Your task to perform on an android device: allow cookies in the chrome app Image 0: 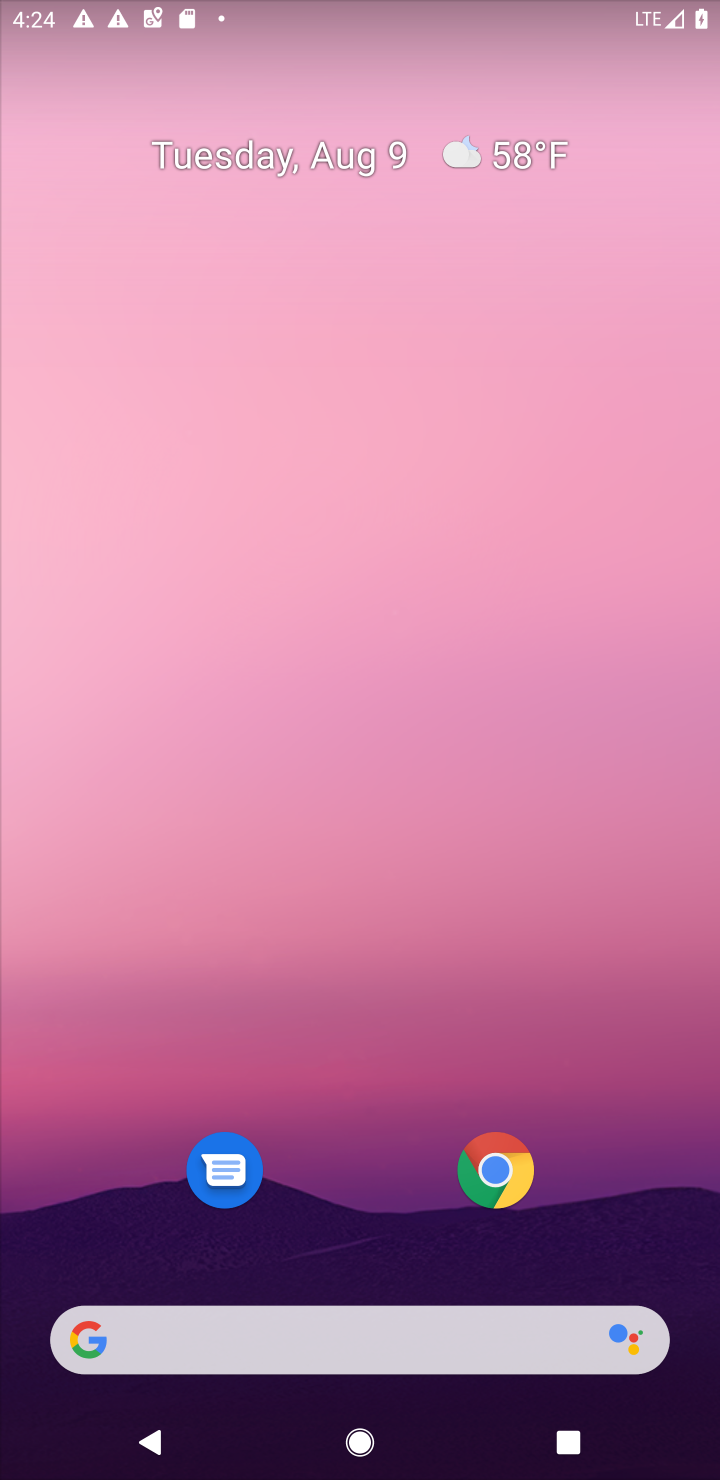
Step 0: press home button
Your task to perform on an android device: allow cookies in the chrome app Image 1: 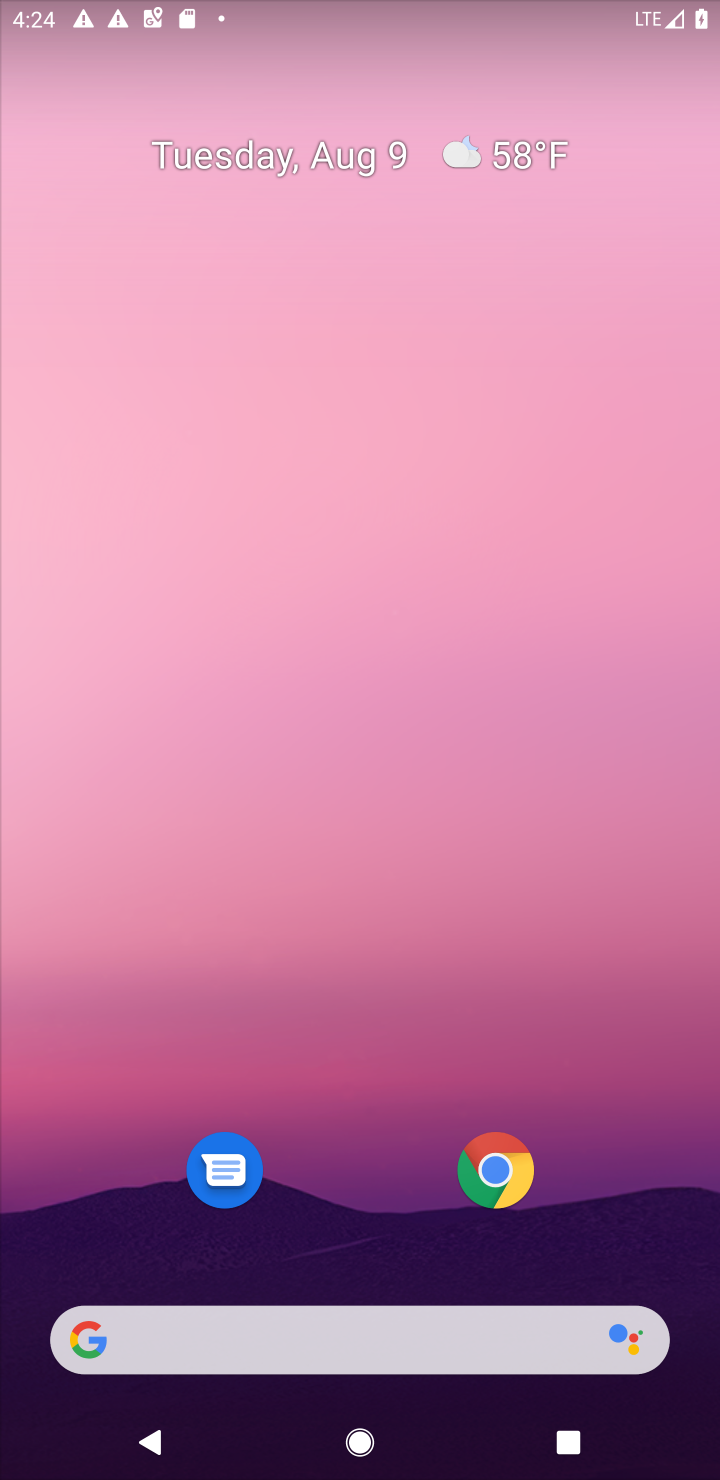
Step 1: click (494, 1178)
Your task to perform on an android device: allow cookies in the chrome app Image 2: 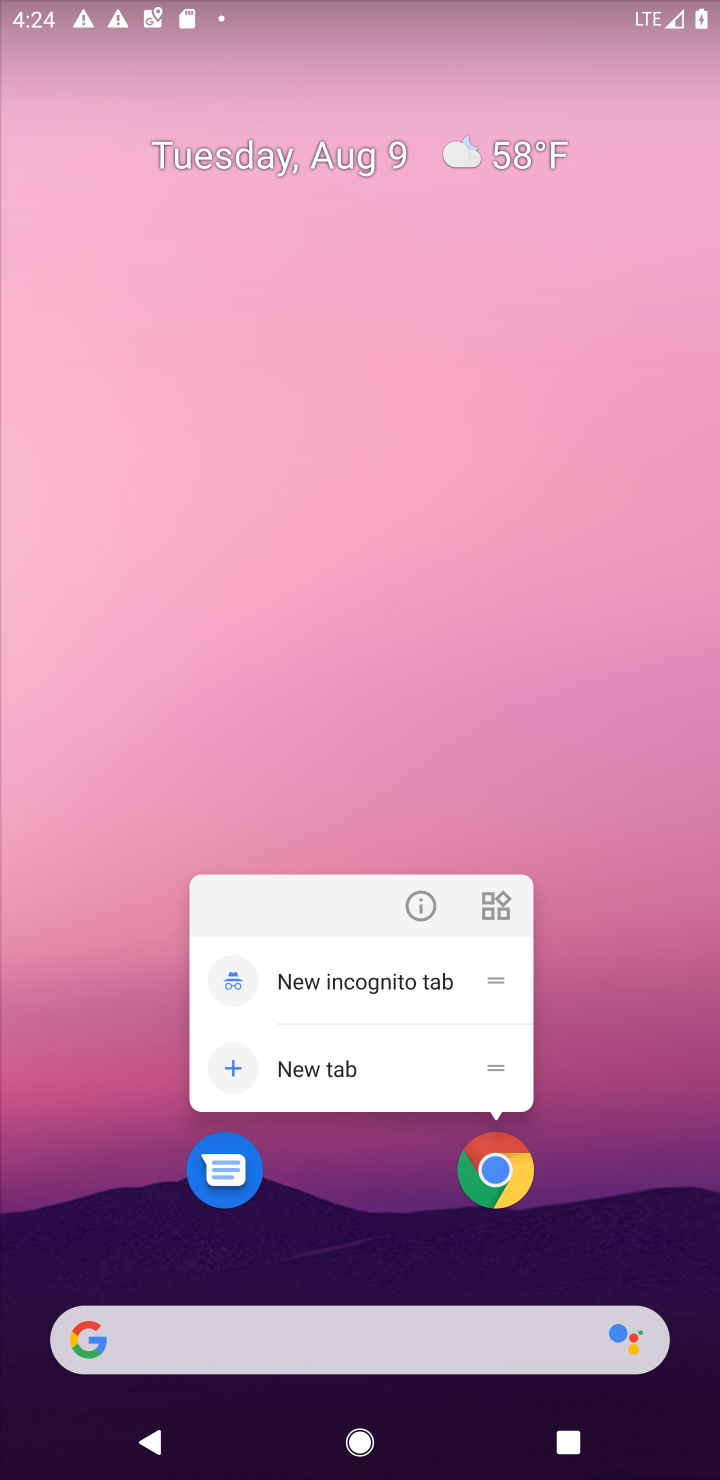
Step 2: click (491, 1183)
Your task to perform on an android device: allow cookies in the chrome app Image 3: 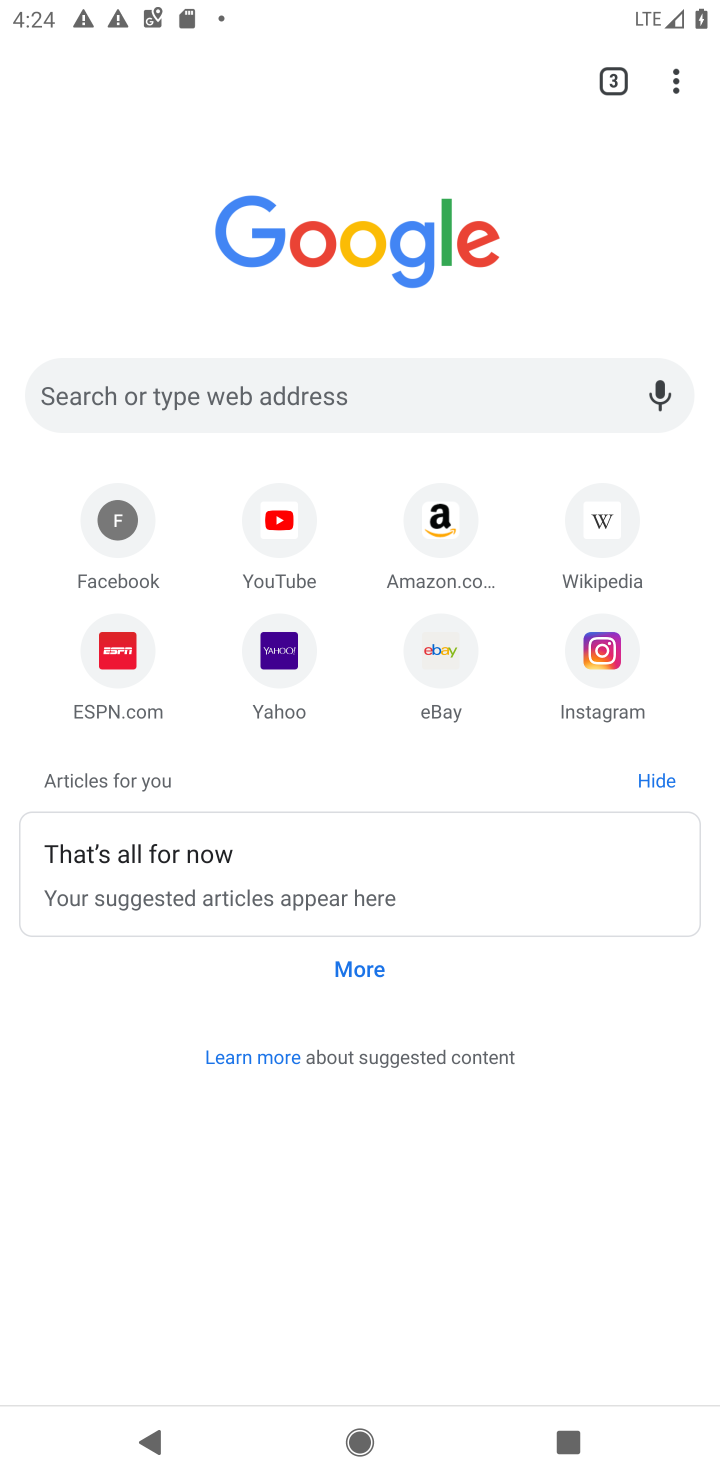
Step 3: drag from (675, 76) to (382, 684)
Your task to perform on an android device: allow cookies in the chrome app Image 4: 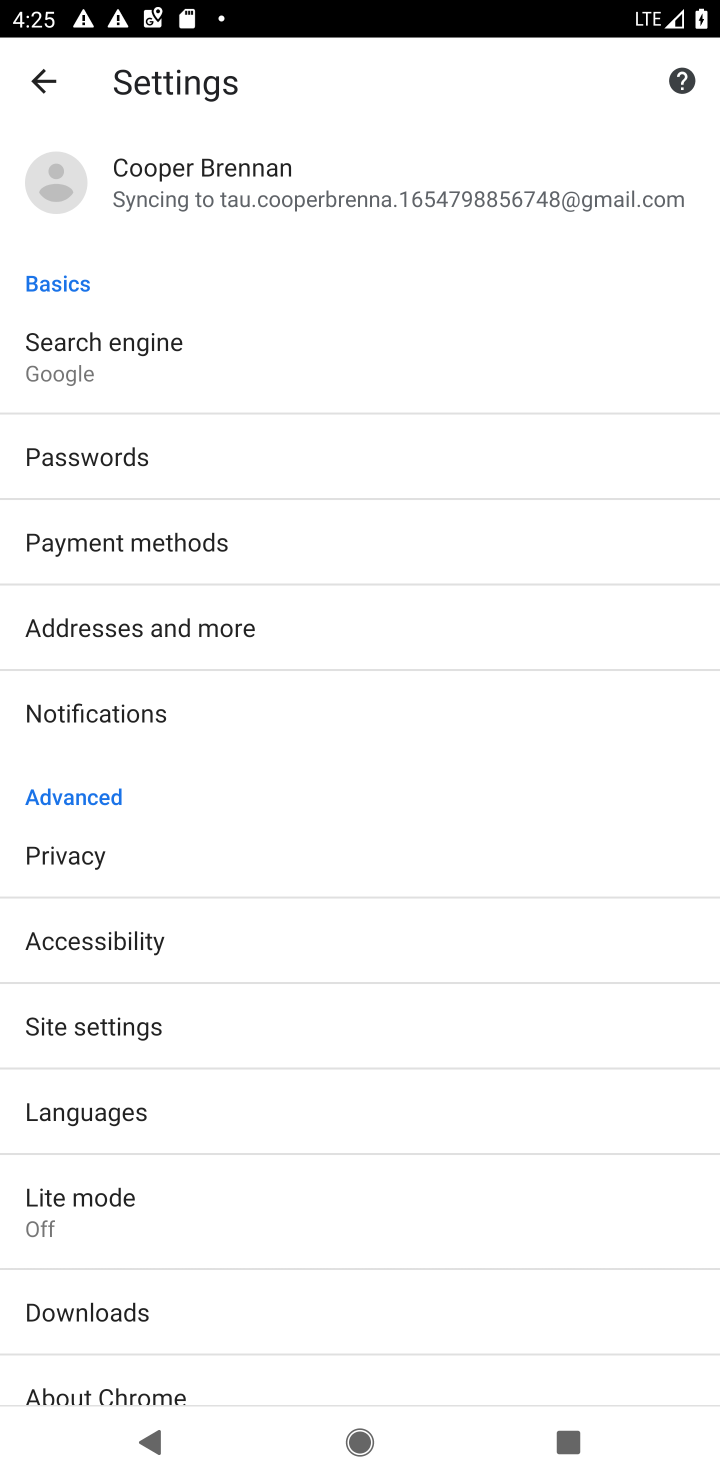
Step 4: click (72, 1009)
Your task to perform on an android device: allow cookies in the chrome app Image 5: 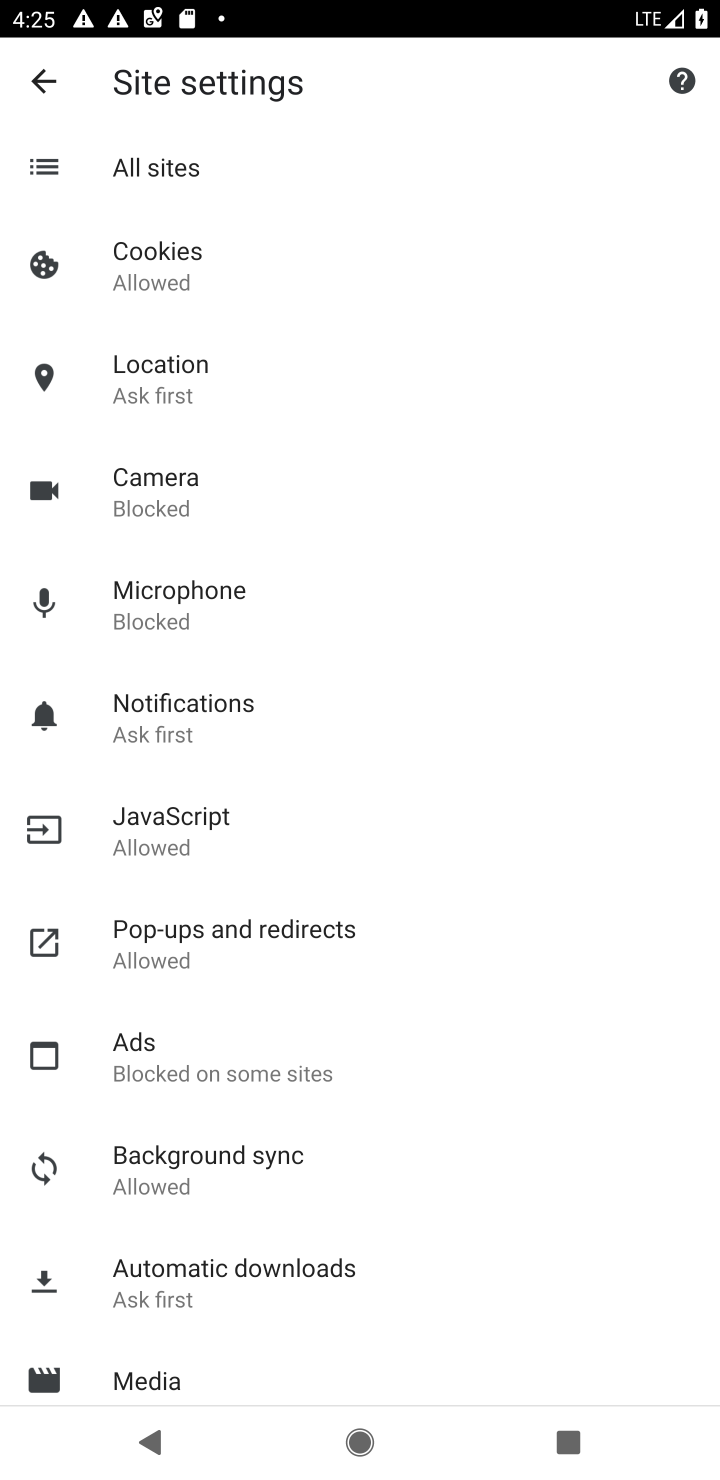
Step 5: click (163, 284)
Your task to perform on an android device: allow cookies in the chrome app Image 6: 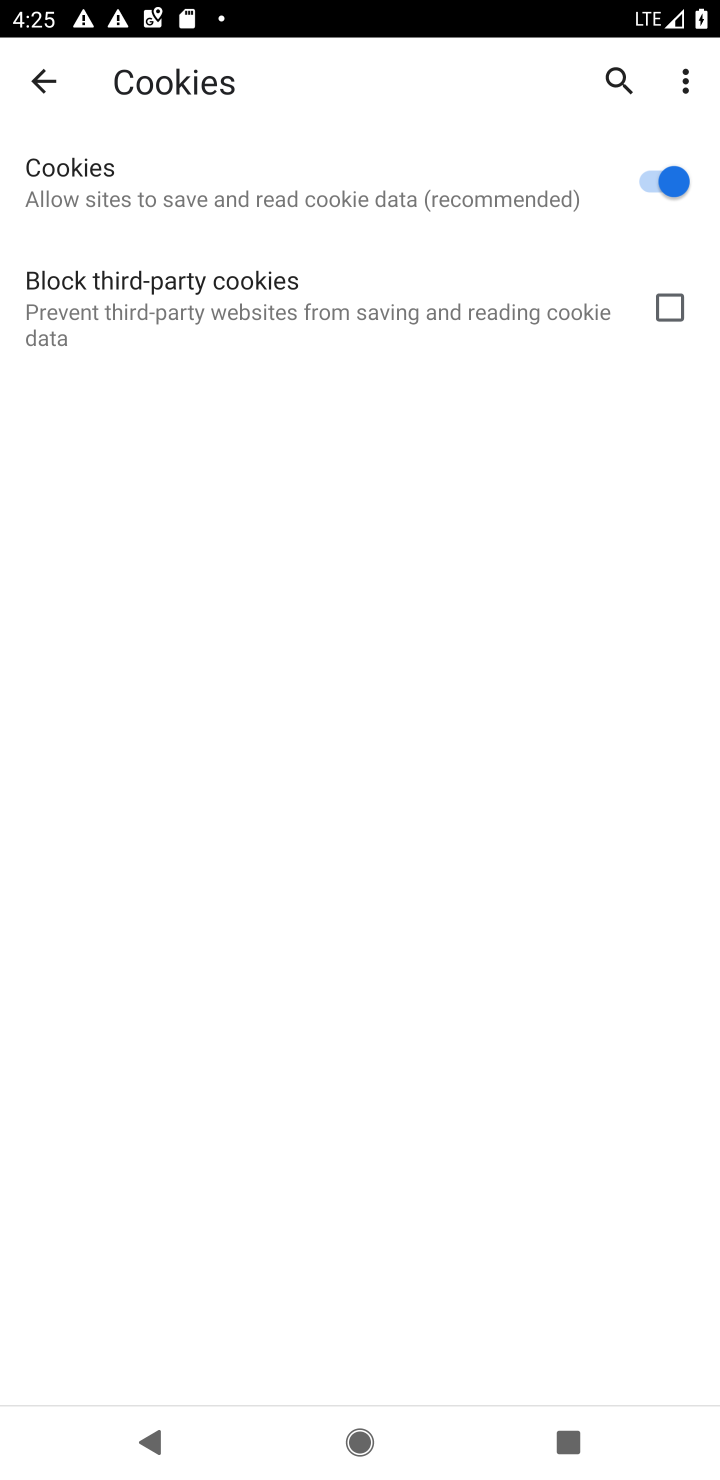
Step 6: task complete